Your task to perform on an android device: move a message to another label in the gmail app Image 0: 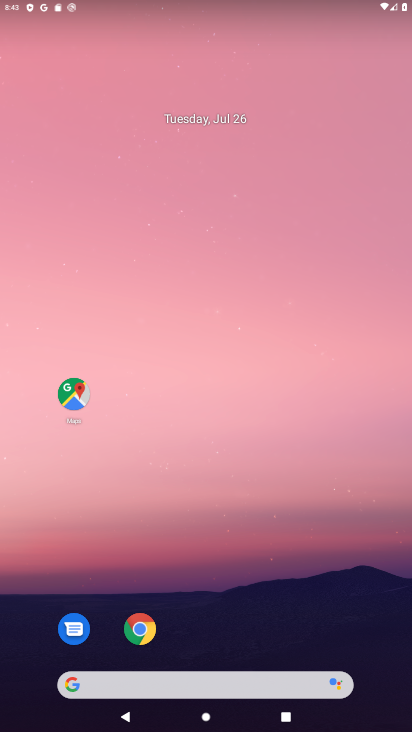
Step 0: press home button
Your task to perform on an android device: move a message to another label in the gmail app Image 1: 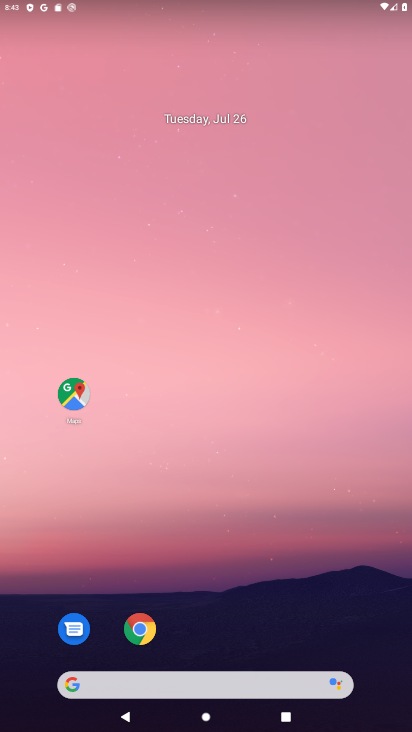
Step 1: drag from (271, 584) to (274, 0)
Your task to perform on an android device: move a message to another label in the gmail app Image 2: 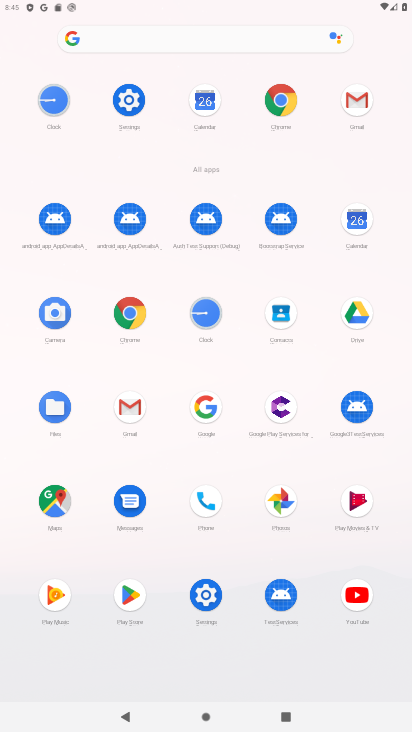
Step 2: click (138, 430)
Your task to perform on an android device: move a message to another label in the gmail app Image 3: 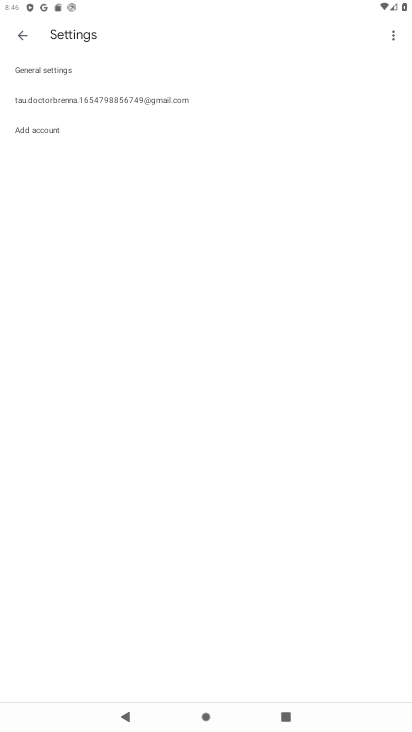
Step 3: click (25, 33)
Your task to perform on an android device: move a message to another label in the gmail app Image 4: 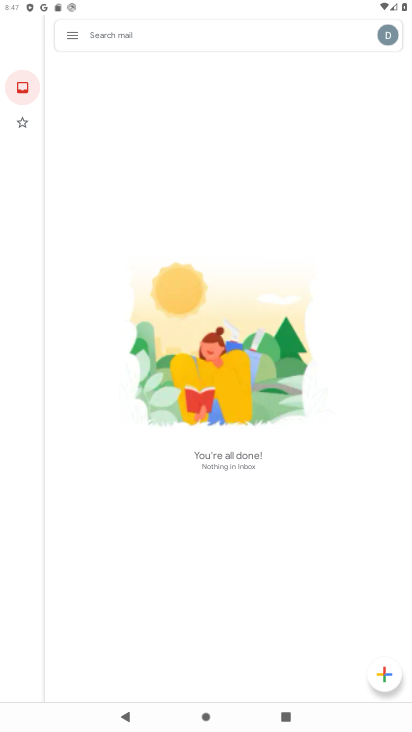
Step 4: task complete